Your task to perform on an android device: install app "Viber Messenger" Image 0: 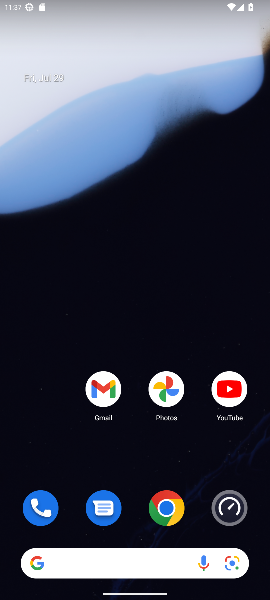
Step 0: drag from (170, 564) to (230, 95)
Your task to perform on an android device: install app "Viber Messenger" Image 1: 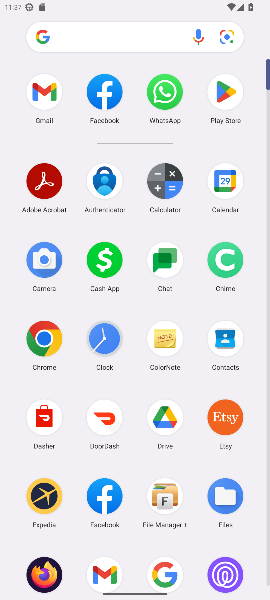
Step 1: click (228, 94)
Your task to perform on an android device: install app "Viber Messenger" Image 2: 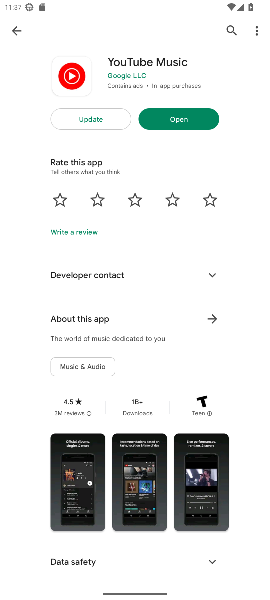
Step 2: click (227, 30)
Your task to perform on an android device: install app "Viber Messenger" Image 3: 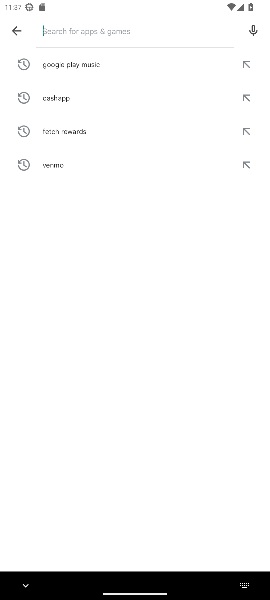
Step 3: type "viber messenger"
Your task to perform on an android device: install app "Viber Messenger" Image 4: 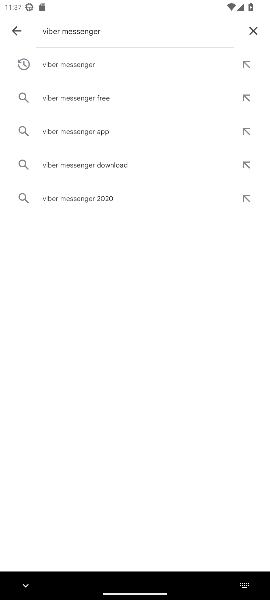
Step 4: click (117, 67)
Your task to perform on an android device: install app "Viber Messenger" Image 5: 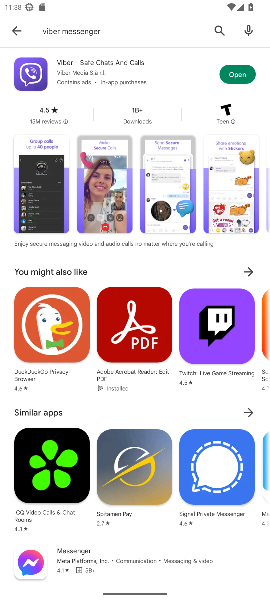
Step 5: task complete